Your task to perform on an android device: change timer sound Image 0: 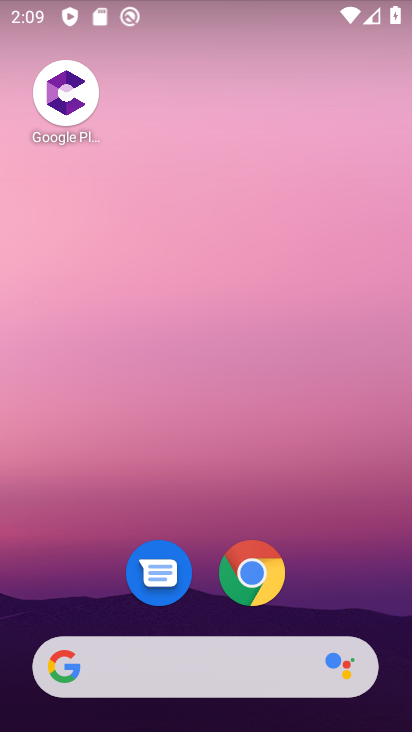
Step 0: click (44, 583)
Your task to perform on an android device: change timer sound Image 1: 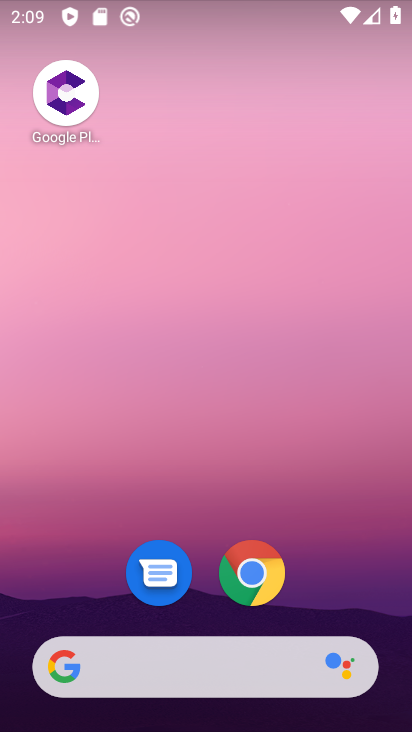
Step 1: drag from (195, 607) to (267, 39)
Your task to perform on an android device: change timer sound Image 2: 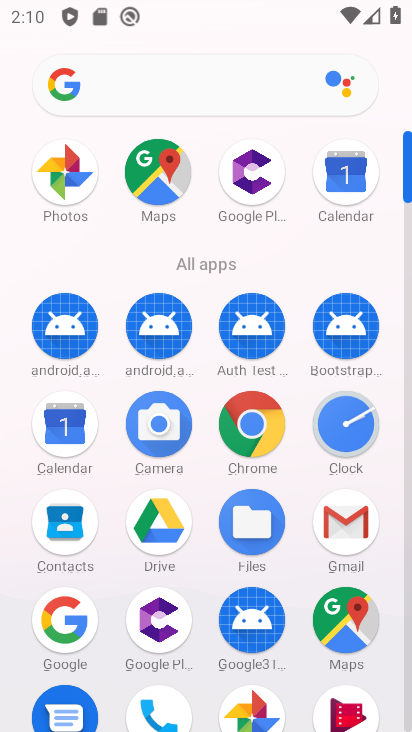
Step 2: drag from (113, 524) to (120, 145)
Your task to perform on an android device: change timer sound Image 3: 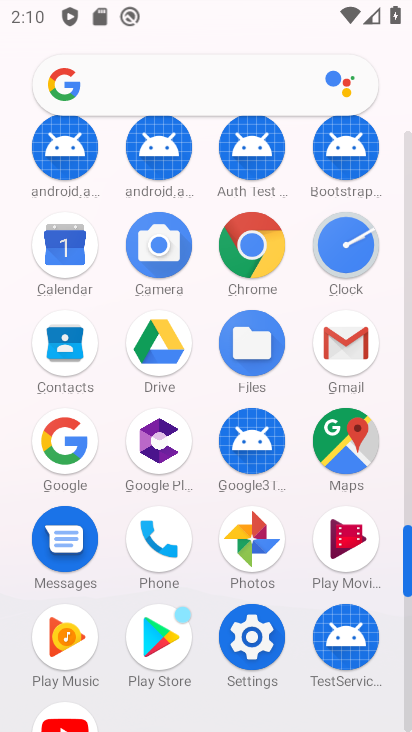
Step 3: click (326, 256)
Your task to perform on an android device: change timer sound Image 4: 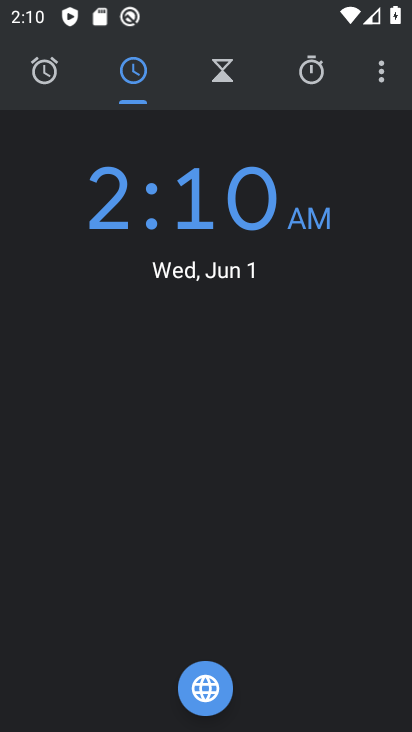
Step 4: click (382, 79)
Your task to perform on an android device: change timer sound Image 5: 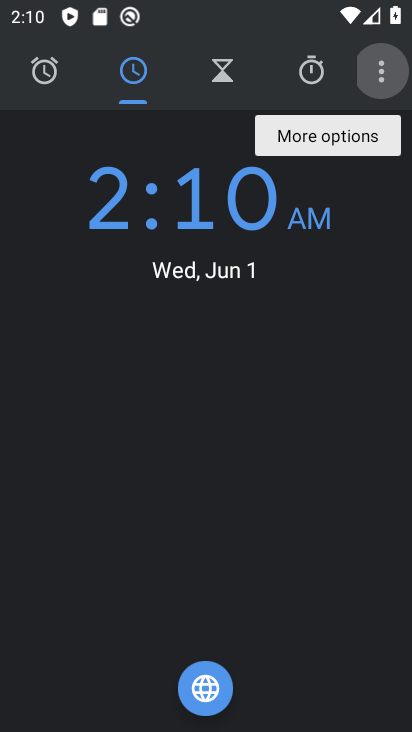
Step 5: click (382, 79)
Your task to perform on an android device: change timer sound Image 6: 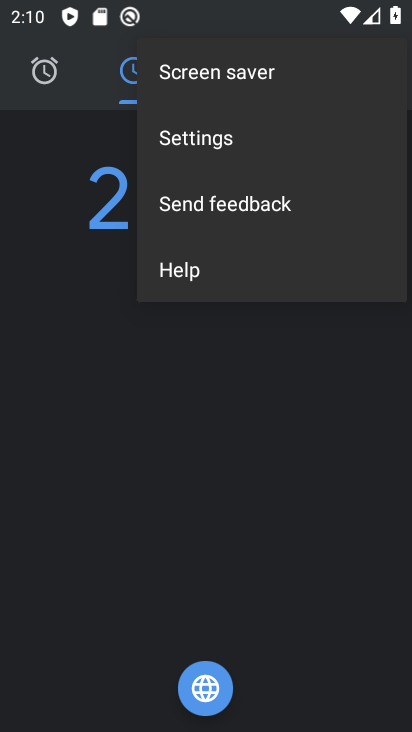
Step 6: click (199, 158)
Your task to perform on an android device: change timer sound Image 7: 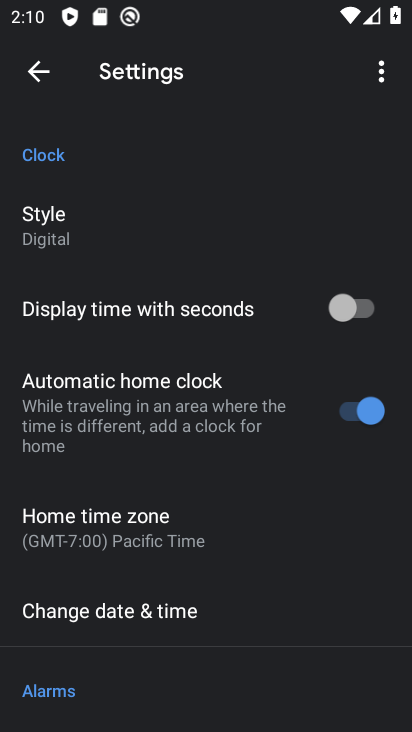
Step 7: drag from (158, 641) to (179, 211)
Your task to perform on an android device: change timer sound Image 8: 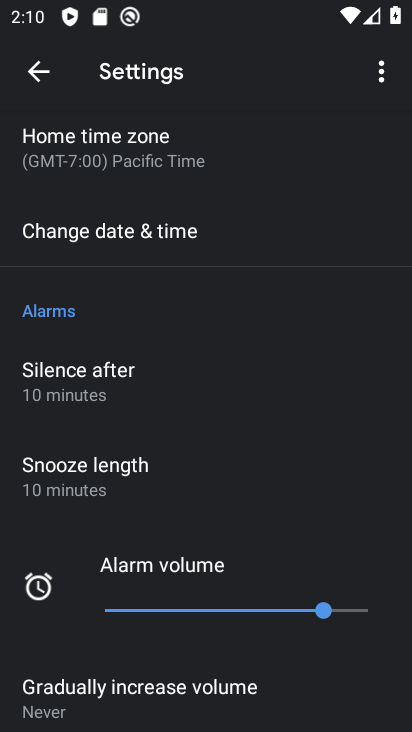
Step 8: drag from (155, 573) to (182, 275)
Your task to perform on an android device: change timer sound Image 9: 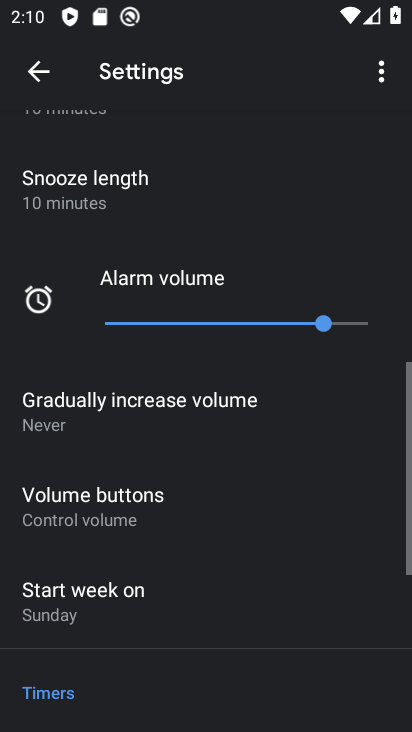
Step 9: drag from (172, 445) to (211, 171)
Your task to perform on an android device: change timer sound Image 10: 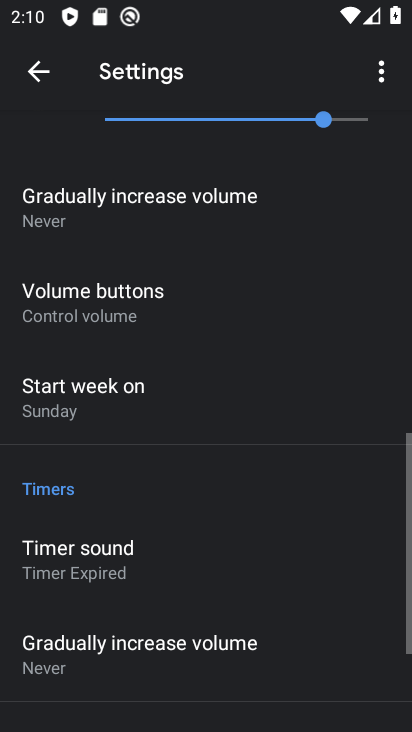
Step 10: drag from (151, 571) to (164, 354)
Your task to perform on an android device: change timer sound Image 11: 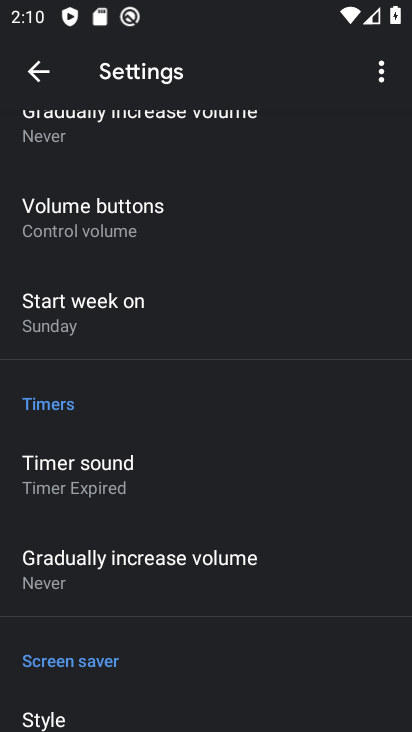
Step 11: click (92, 472)
Your task to perform on an android device: change timer sound Image 12: 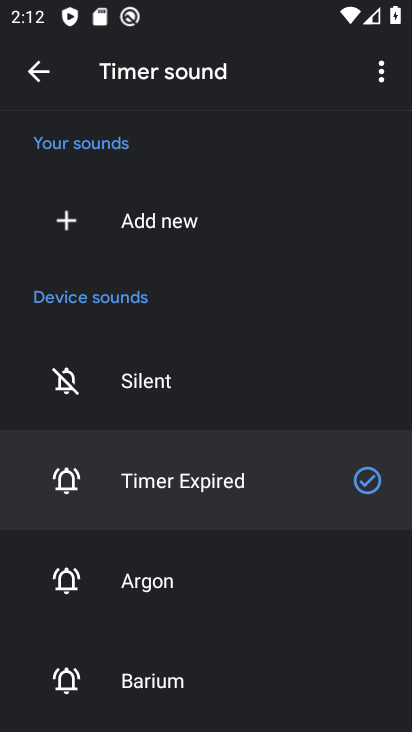
Step 12: click (146, 630)
Your task to perform on an android device: change timer sound Image 13: 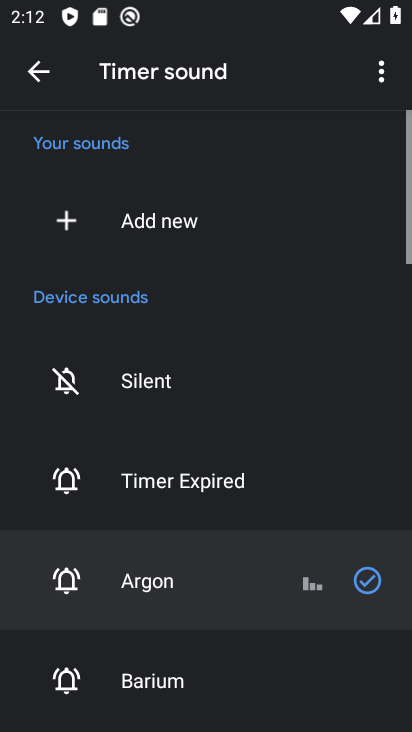
Step 13: task complete